Your task to perform on an android device: Go to Reddit.com Image 0: 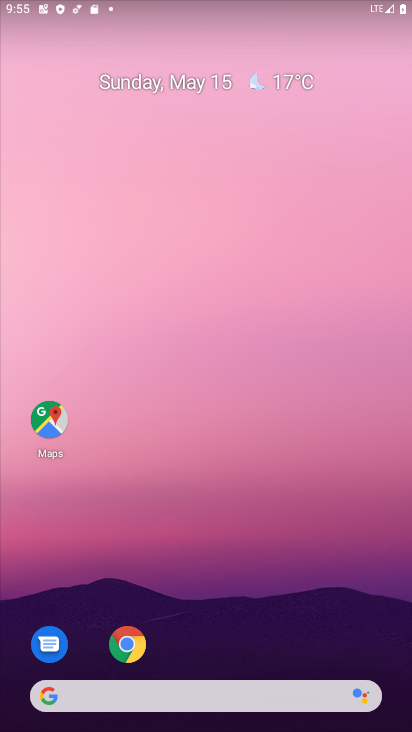
Step 0: drag from (220, 703) to (277, 290)
Your task to perform on an android device: Go to Reddit.com Image 1: 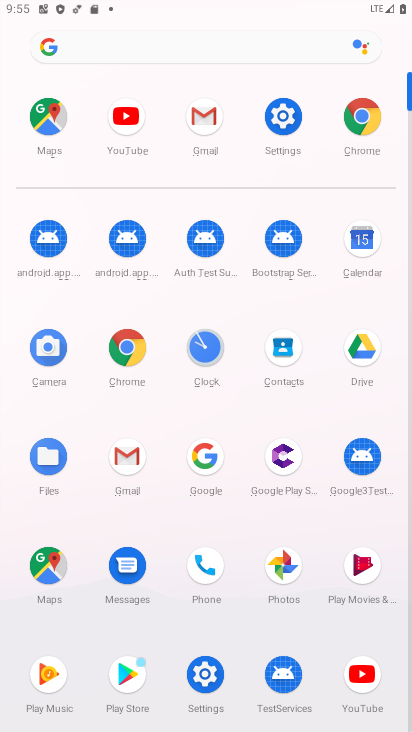
Step 1: click (349, 110)
Your task to perform on an android device: Go to Reddit.com Image 2: 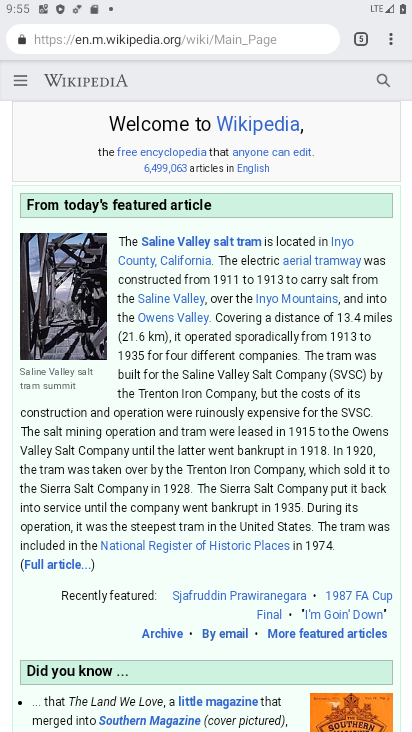
Step 2: click (137, 39)
Your task to perform on an android device: Go to Reddit.com Image 3: 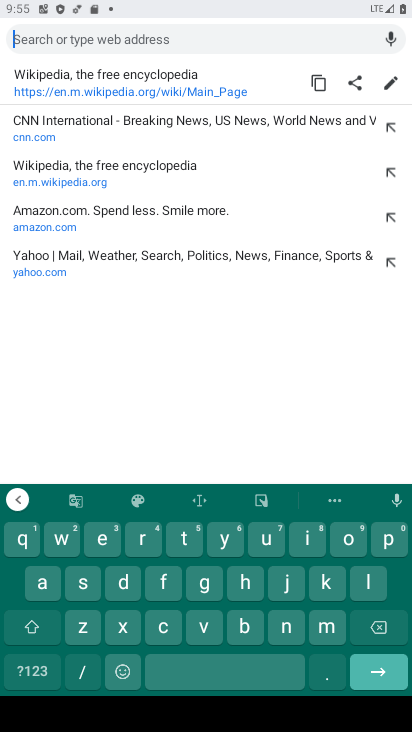
Step 3: click (133, 545)
Your task to perform on an android device: Go to Reddit.com Image 4: 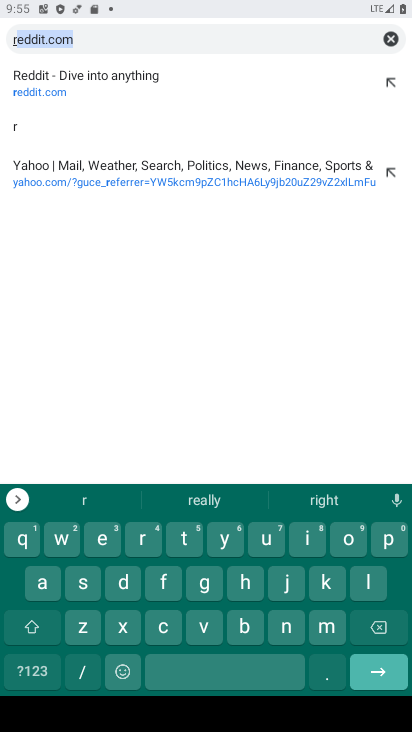
Step 4: click (104, 539)
Your task to perform on an android device: Go to Reddit.com Image 5: 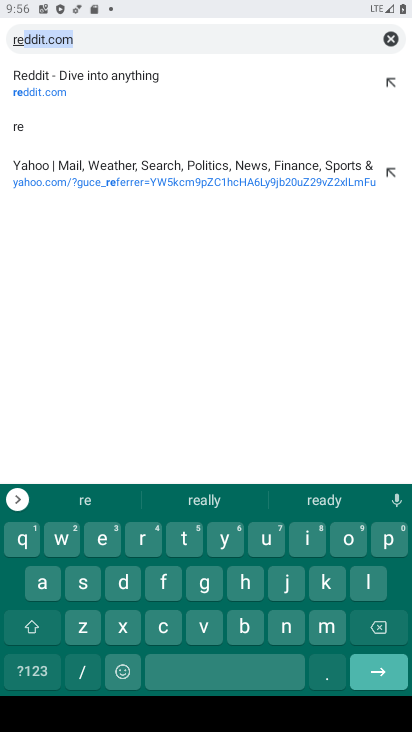
Step 5: click (93, 39)
Your task to perform on an android device: Go to Reddit.com Image 6: 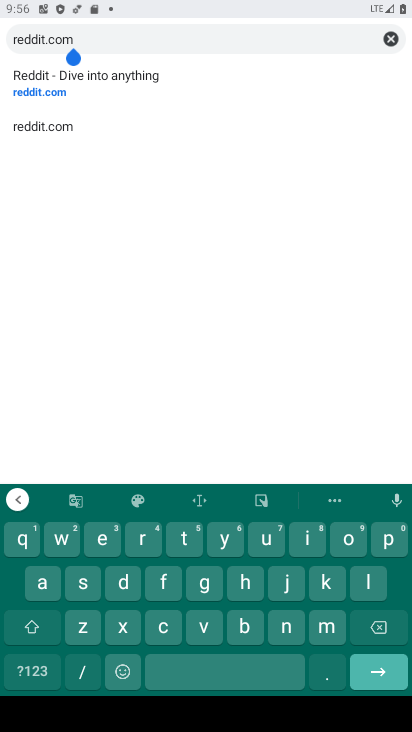
Step 6: click (390, 674)
Your task to perform on an android device: Go to Reddit.com Image 7: 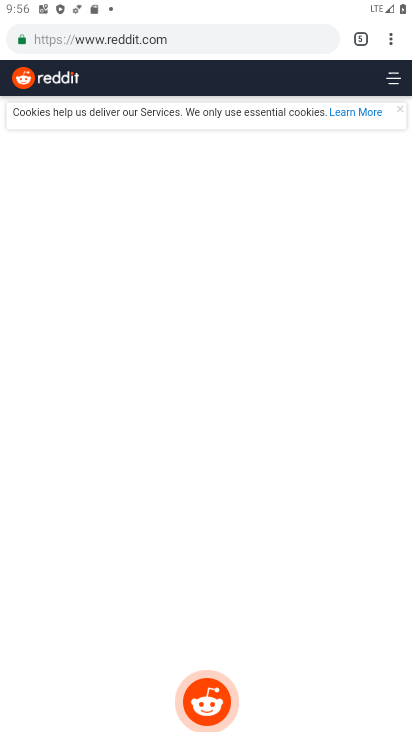
Step 7: task complete